Your task to perform on an android device: Search for sushi restaurants on Maps Image 0: 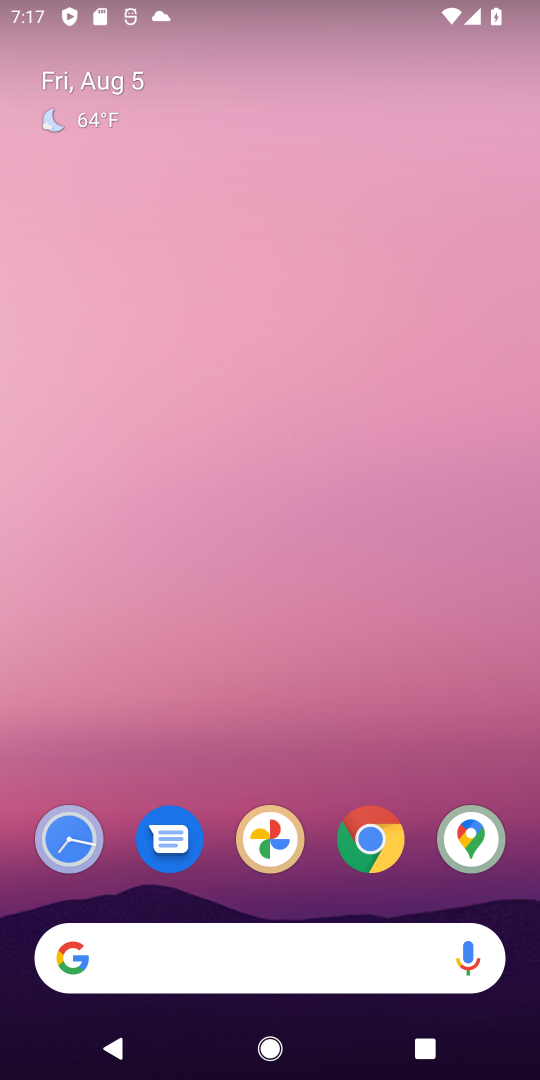
Step 0: drag from (313, 896) to (305, 53)
Your task to perform on an android device: Search for sushi restaurants on Maps Image 1: 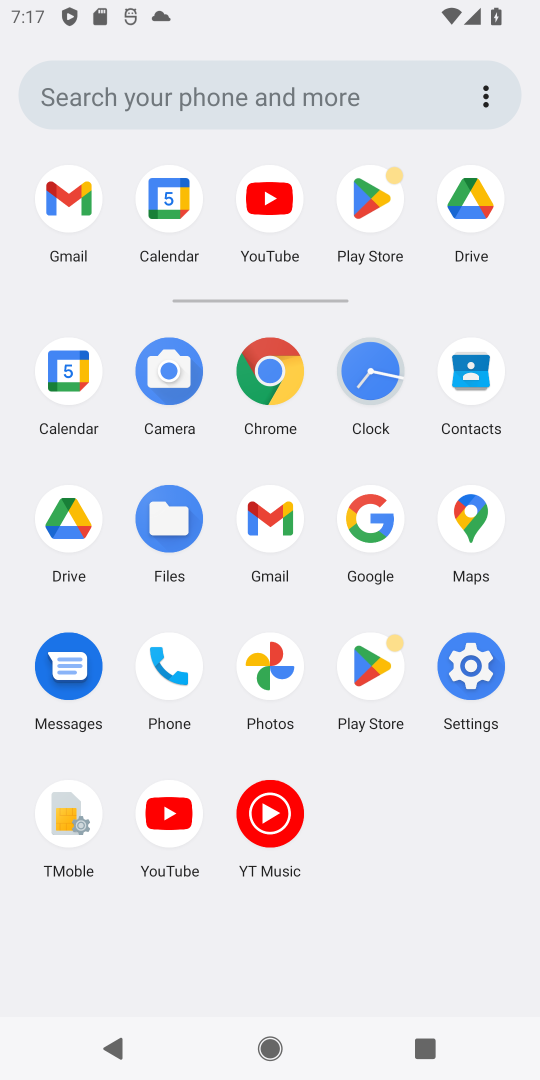
Step 1: click (476, 516)
Your task to perform on an android device: Search for sushi restaurants on Maps Image 2: 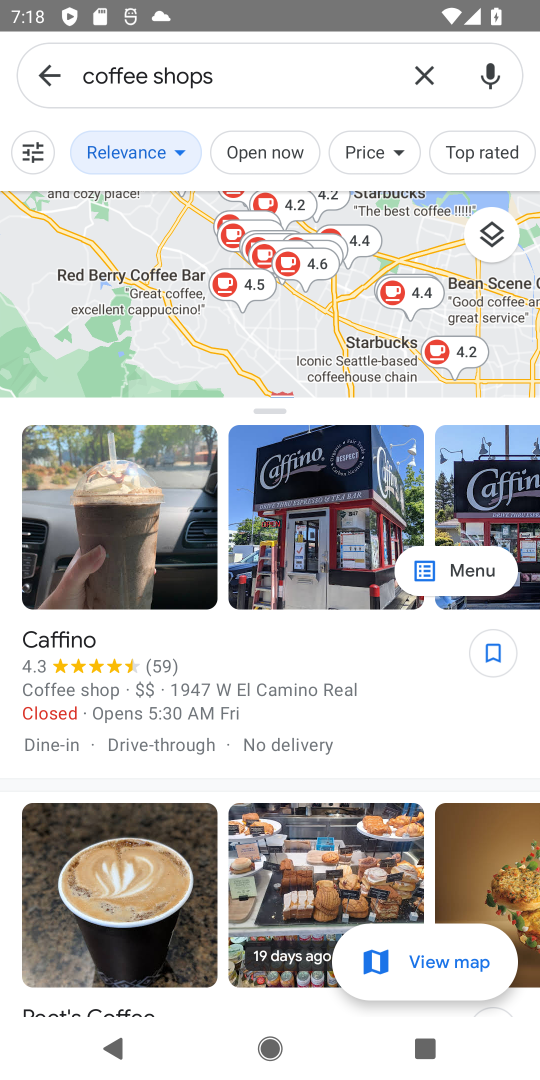
Step 2: click (417, 77)
Your task to perform on an android device: Search for sushi restaurants on Maps Image 3: 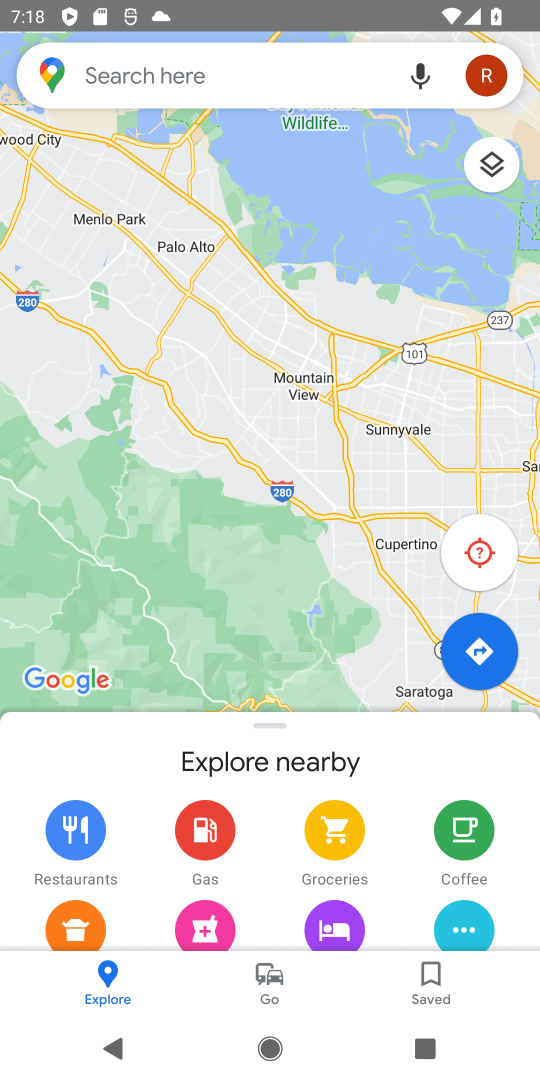
Step 3: click (182, 81)
Your task to perform on an android device: Search for sushi restaurants on Maps Image 4: 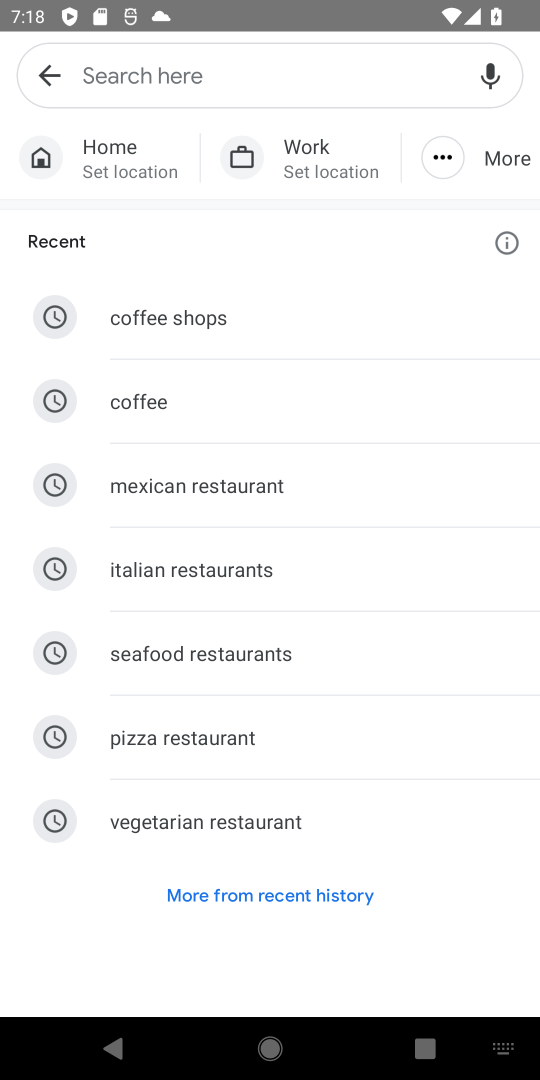
Step 4: type "sushi restaurants"
Your task to perform on an android device: Search for sushi restaurants on Maps Image 5: 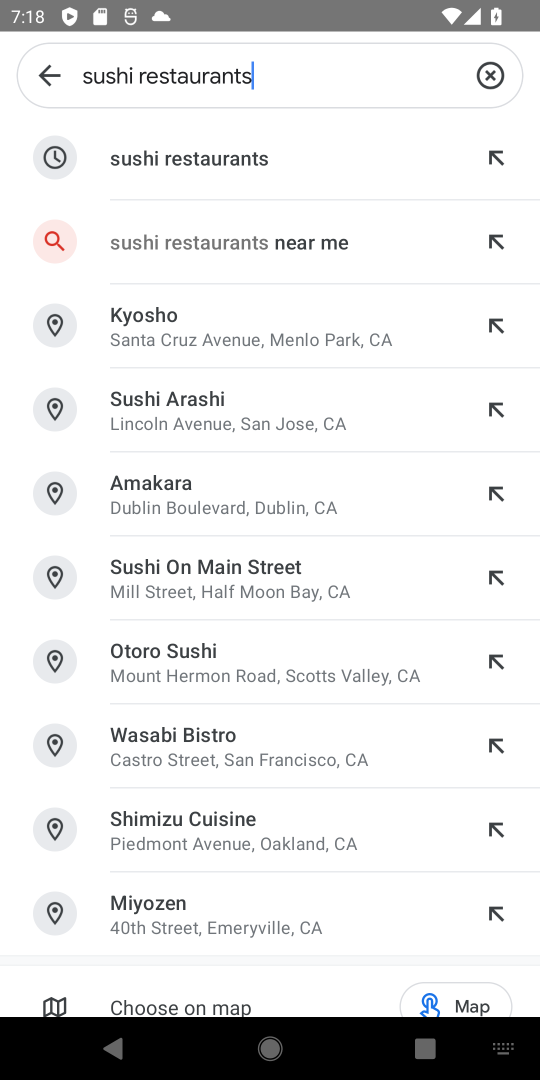
Step 5: click (229, 154)
Your task to perform on an android device: Search for sushi restaurants on Maps Image 6: 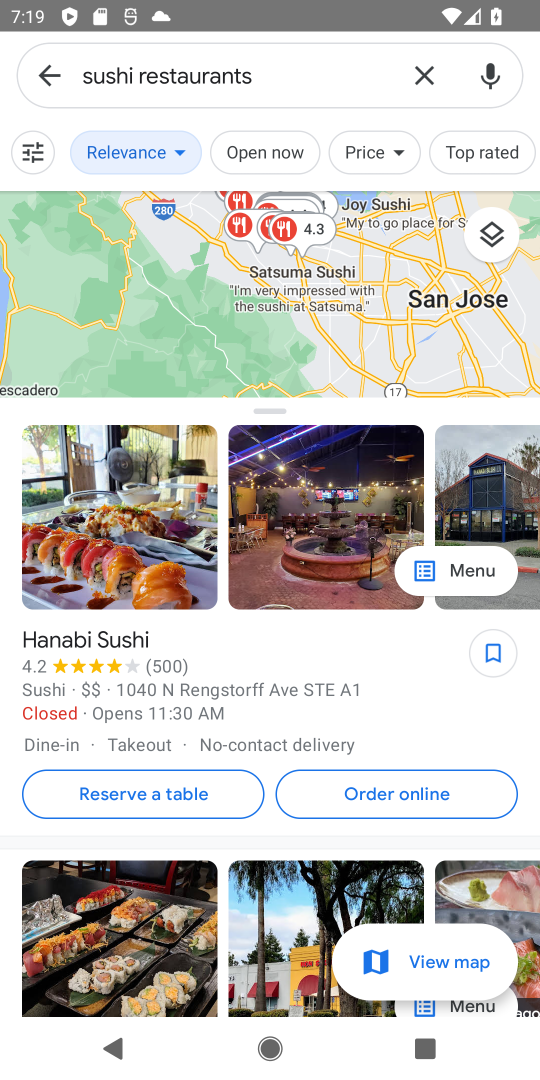
Step 6: task complete